Your task to perform on an android device: turn off data saver in the chrome app Image 0: 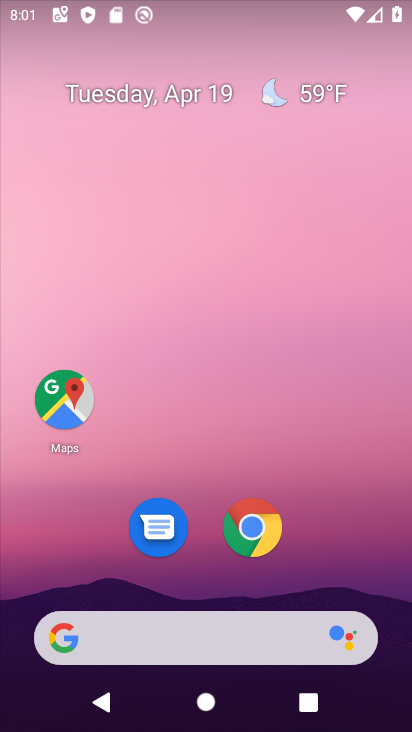
Step 0: click (251, 531)
Your task to perform on an android device: turn off data saver in the chrome app Image 1: 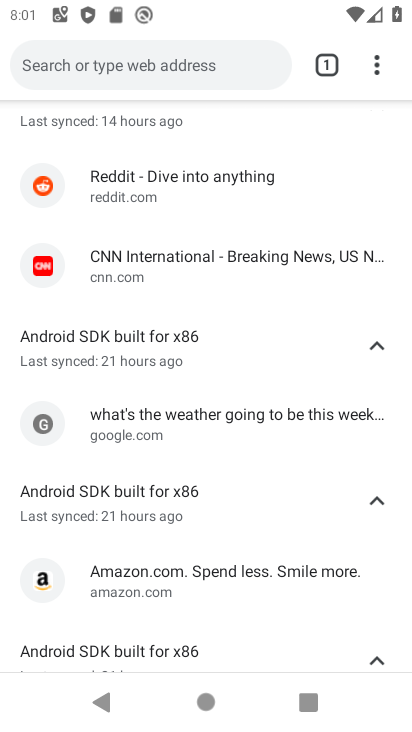
Step 1: click (385, 70)
Your task to perform on an android device: turn off data saver in the chrome app Image 2: 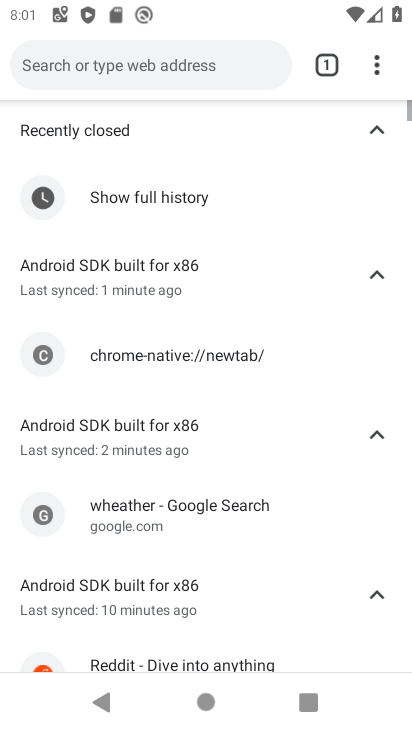
Step 2: drag from (368, 67) to (165, 554)
Your task to perform on an android device: turn off data saver in the chrome app Image 3: 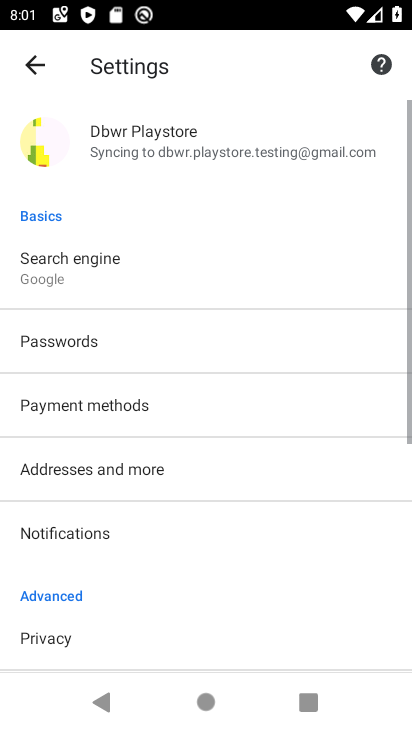
Step 3: drag from (163, 545) to (226, 195)
Your task to perform on an android device: turn off data saver in the chrome app Image 4: 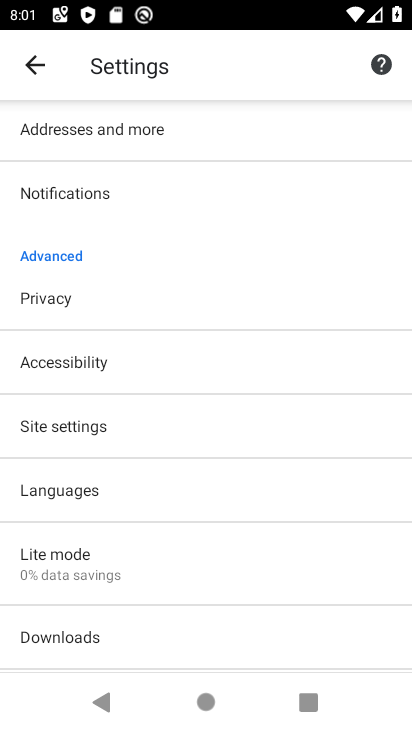
Step 4: drag from (204, 332) to (232, 273)
Your task to perform on an android device: turn off data saver in the chrome app Image 5: 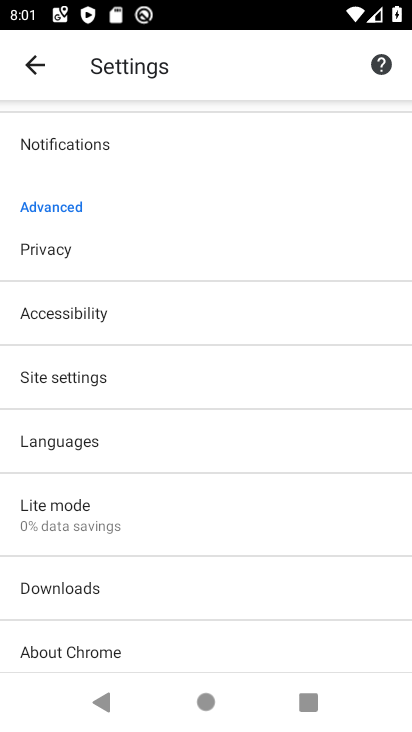
Step 5: click (133, 513)
Your task to perform on an android device: turn off data saver in the chrome app Image 6: 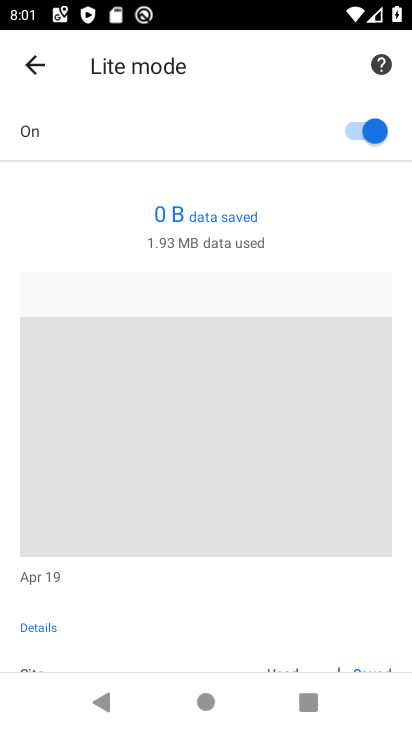
Step 6: click (352, 128)
Your task to perform on an android device: turn off data saver in the chrome app Image 7: 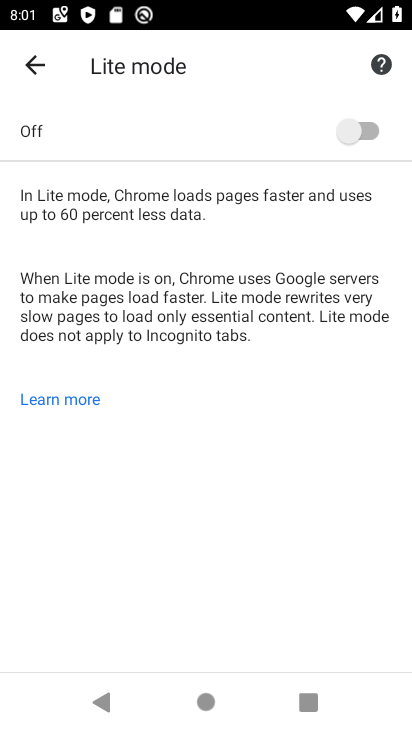
Step 7: task complete